Your task to perform on an android device: toggle notifications settings in the gmail app Image 0: 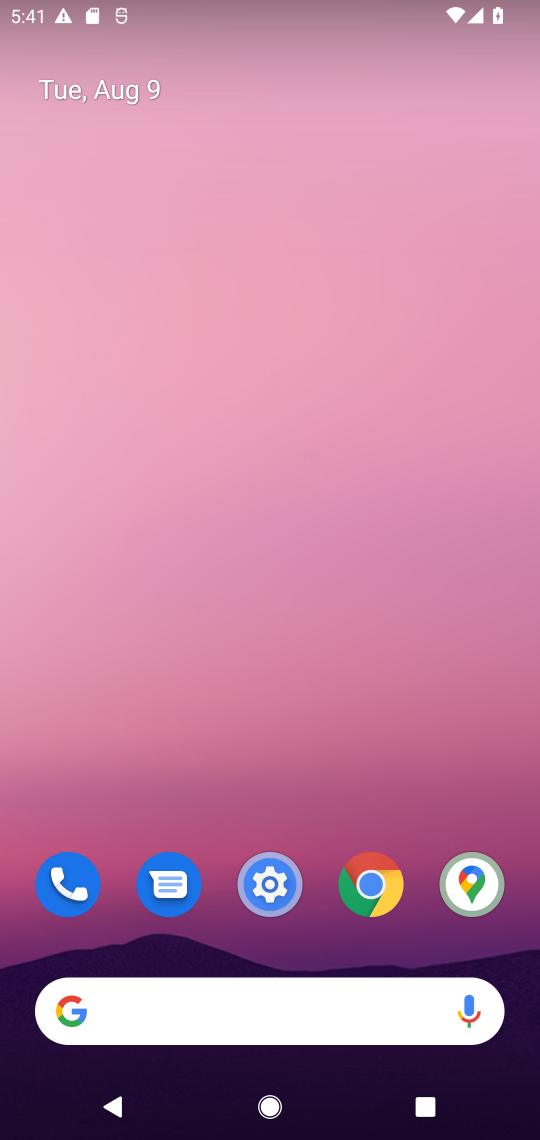
Step 0: drag from (231, 991) to (312, 249)
Your task to perform on an android device: toggle notifications settings in the gmail app Image 1: 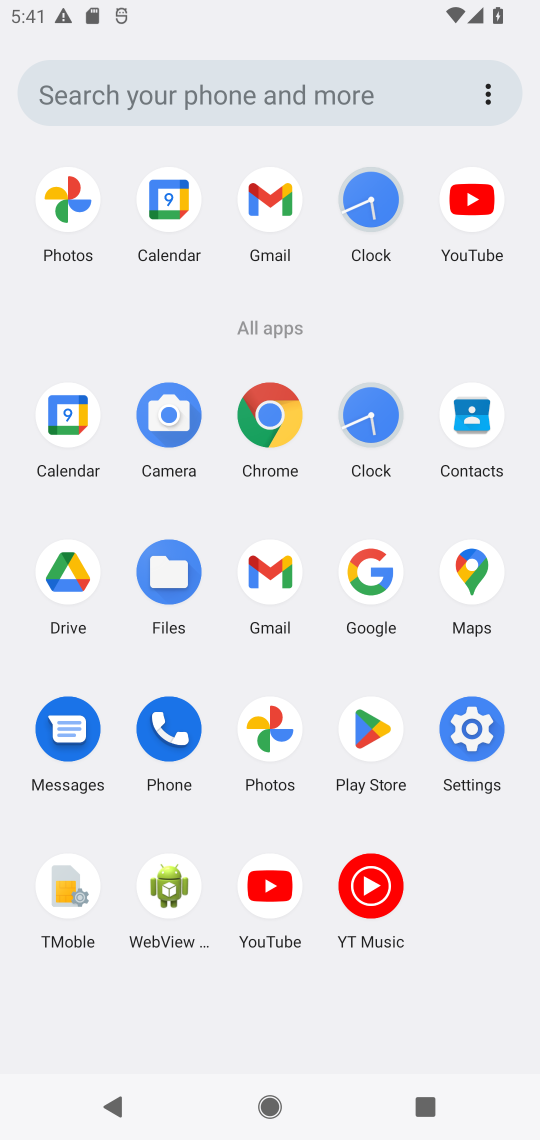
Step 1: click (271, 200)
Your task to perform on an android device: toggle notifications settings in the gmail app Image 2: 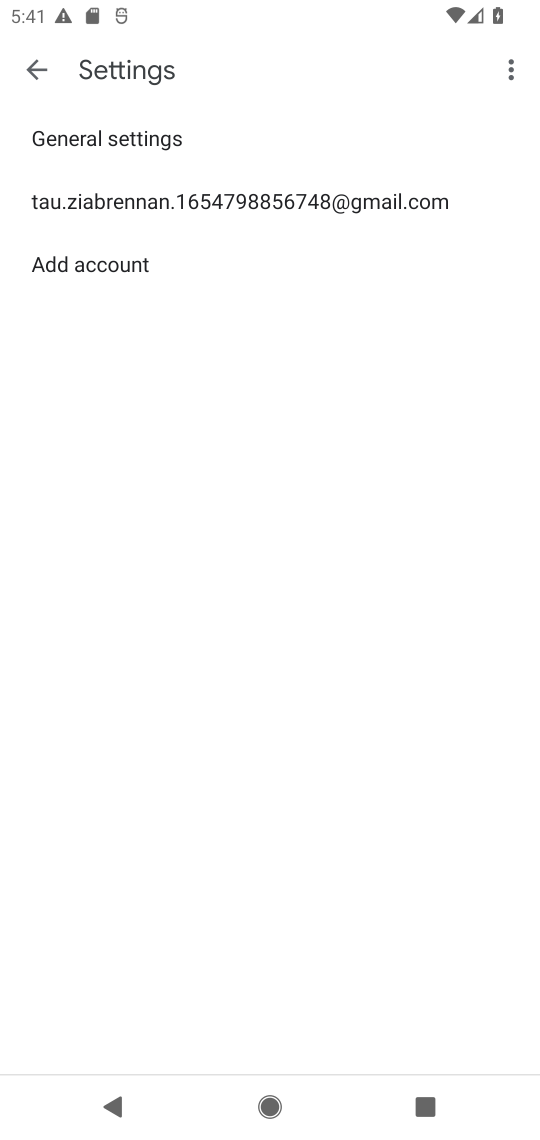
Step 2: click (260, 197)
Your task to perform on an android device: toggle notifications settings in the gmail app Image 3: 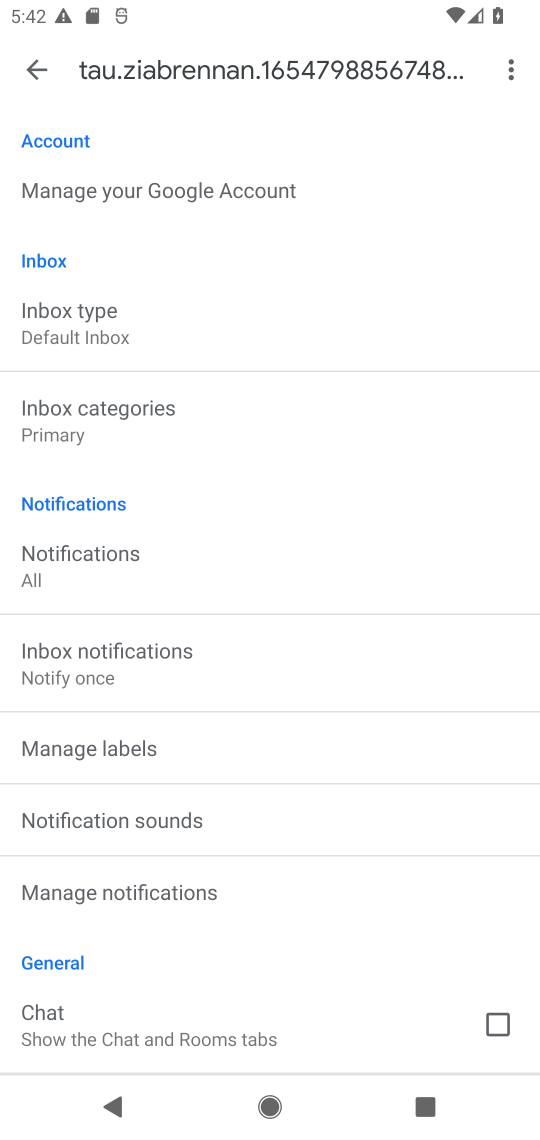
Step 3: click (113, 893)
Your task to perform on an android device: toggle notifications settings in the gmail app Image 4: 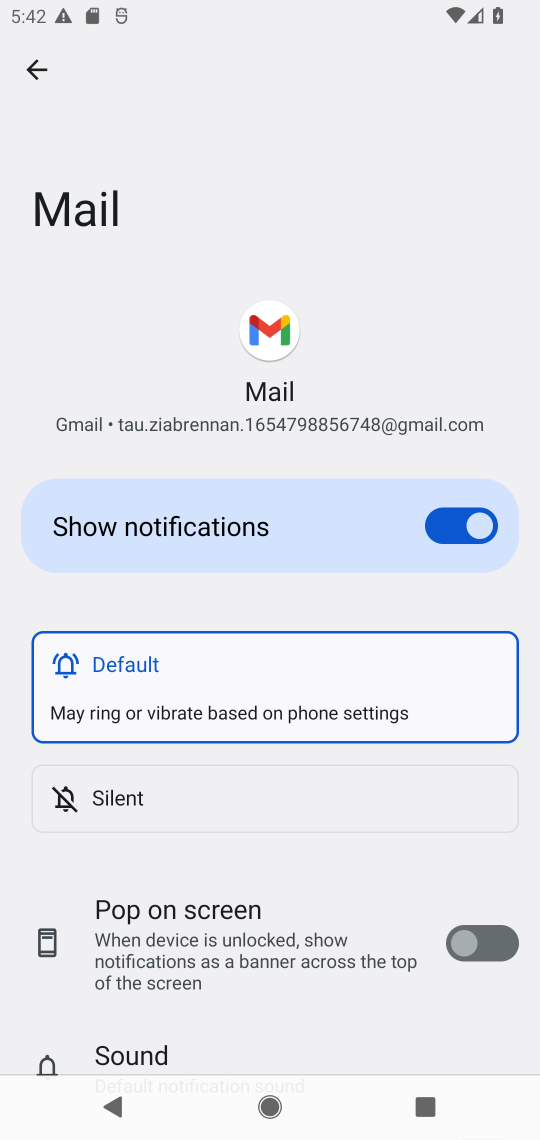
Step 4: click (446, 531)
Your task to perform on an android device: toggle notifications settings in the gmail app Image 5: 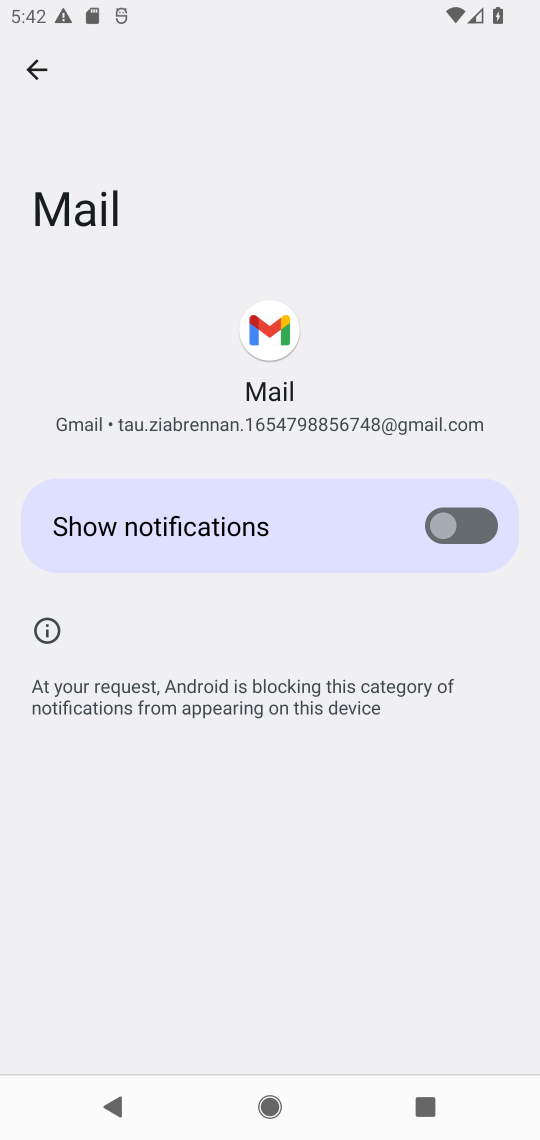
Step 5: task complete